Your task to perform on an android device: open app "Google Find My Device" Image 0: 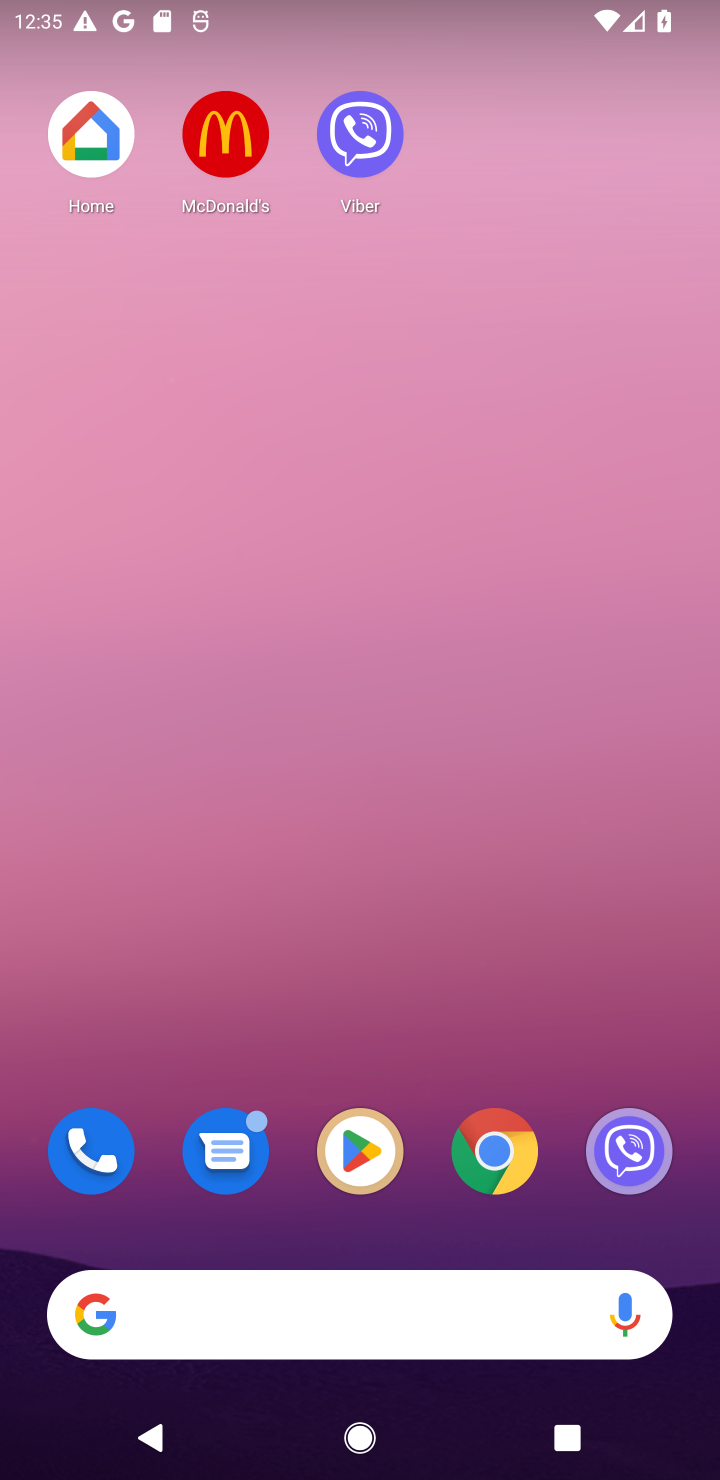
Step 0: click (337, 1136)
Your task to perform on an android device: open app "Google Find My Device" Image 1: 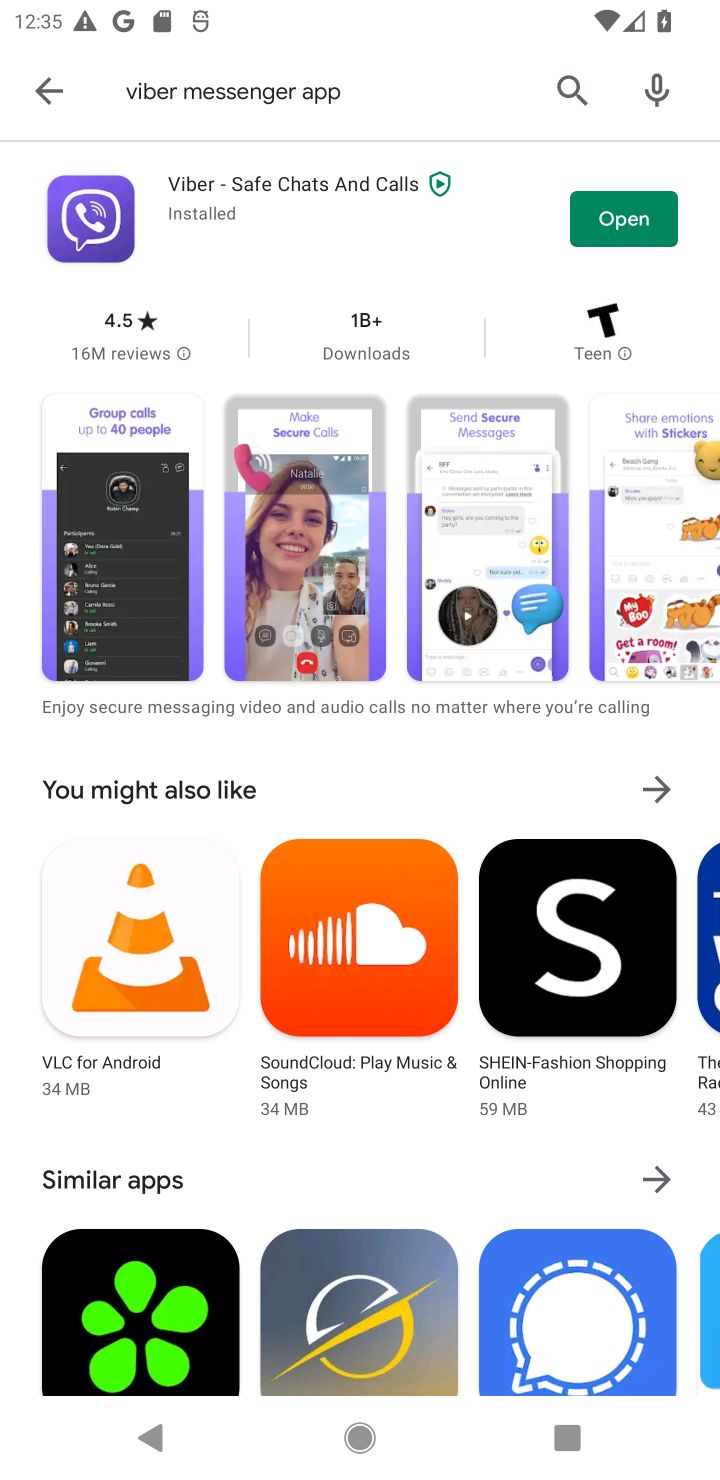
Step 1: click (584, 109)
Your task to perform on an android device: open app "Google Find My Device" Image 2: 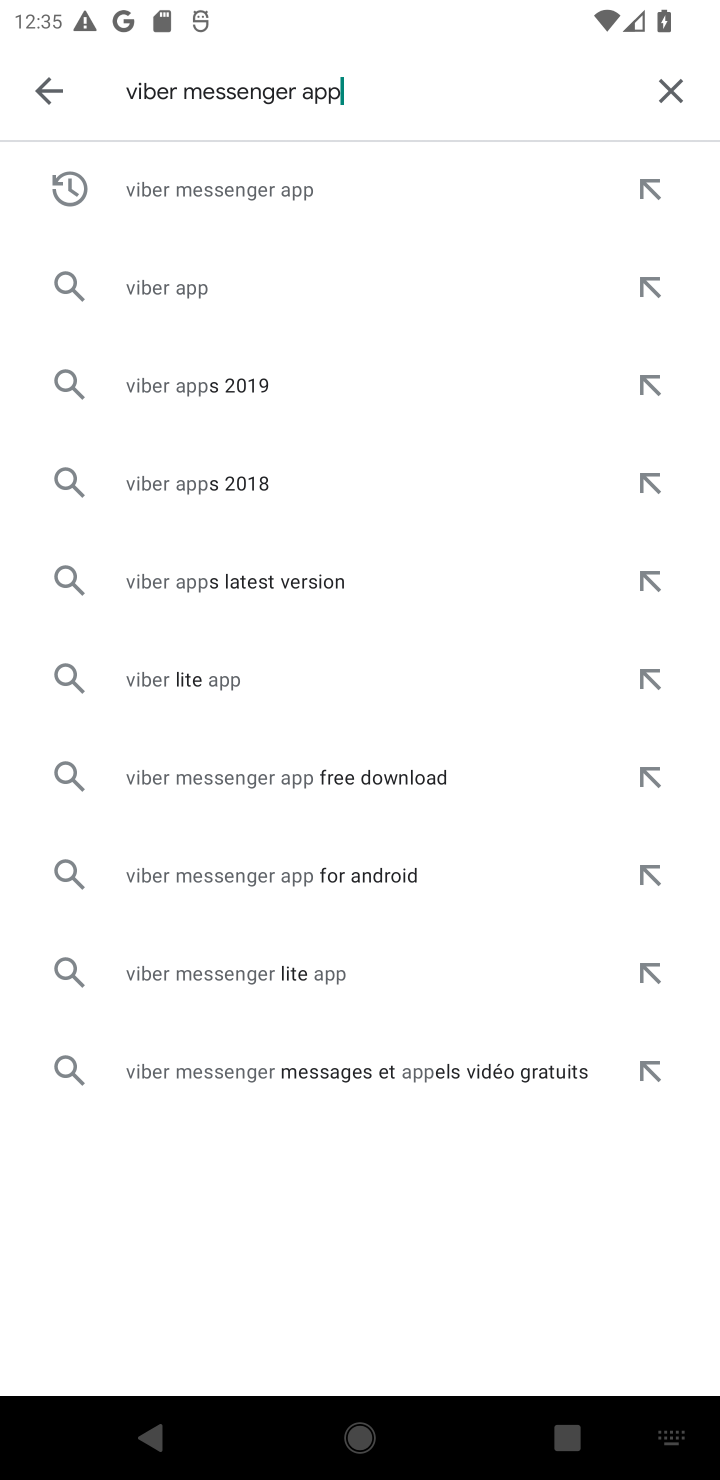
Step 2: click (647, 95)
Your task to perform on an android device: open app "Google Find My Device" Image 3: 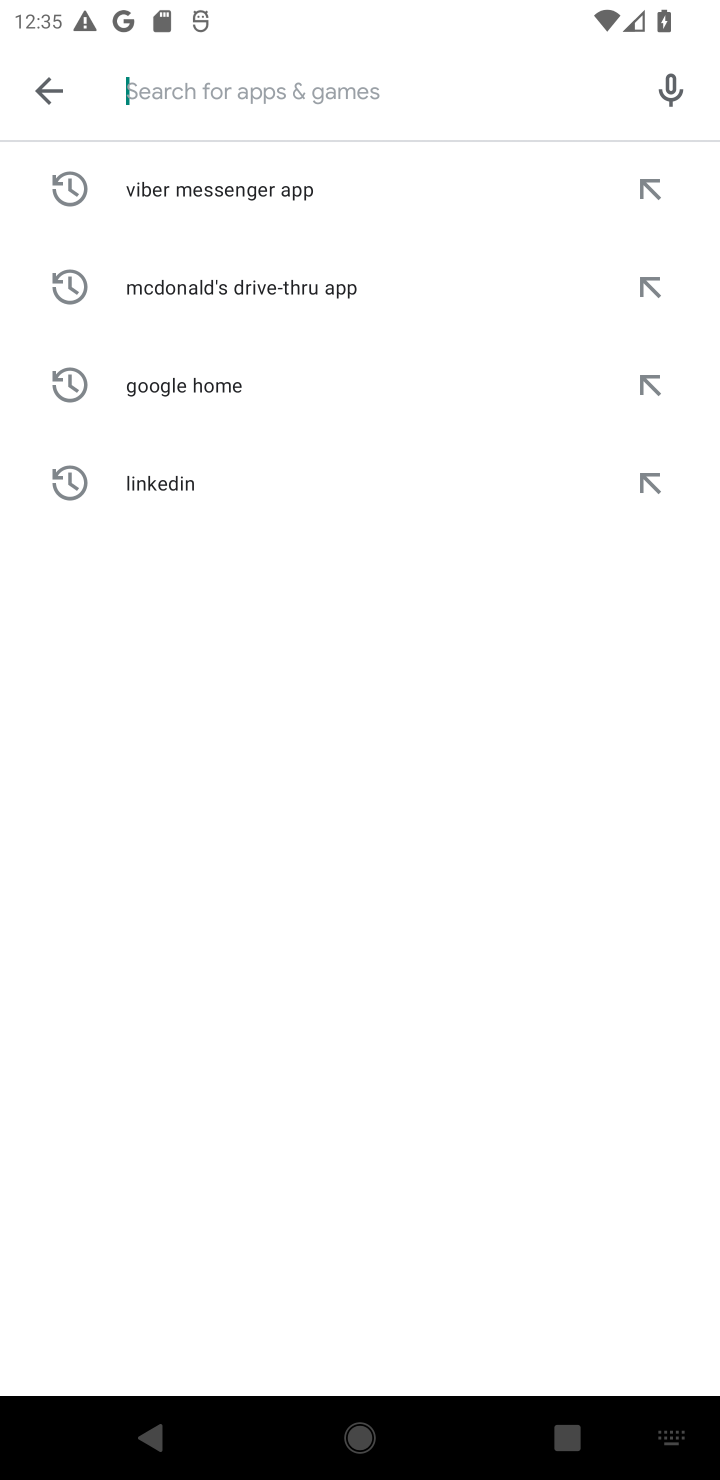
Step 3: type "Google Find My Device"
Your task to perform on an android device: open app "Google Find My Device" Image 4: 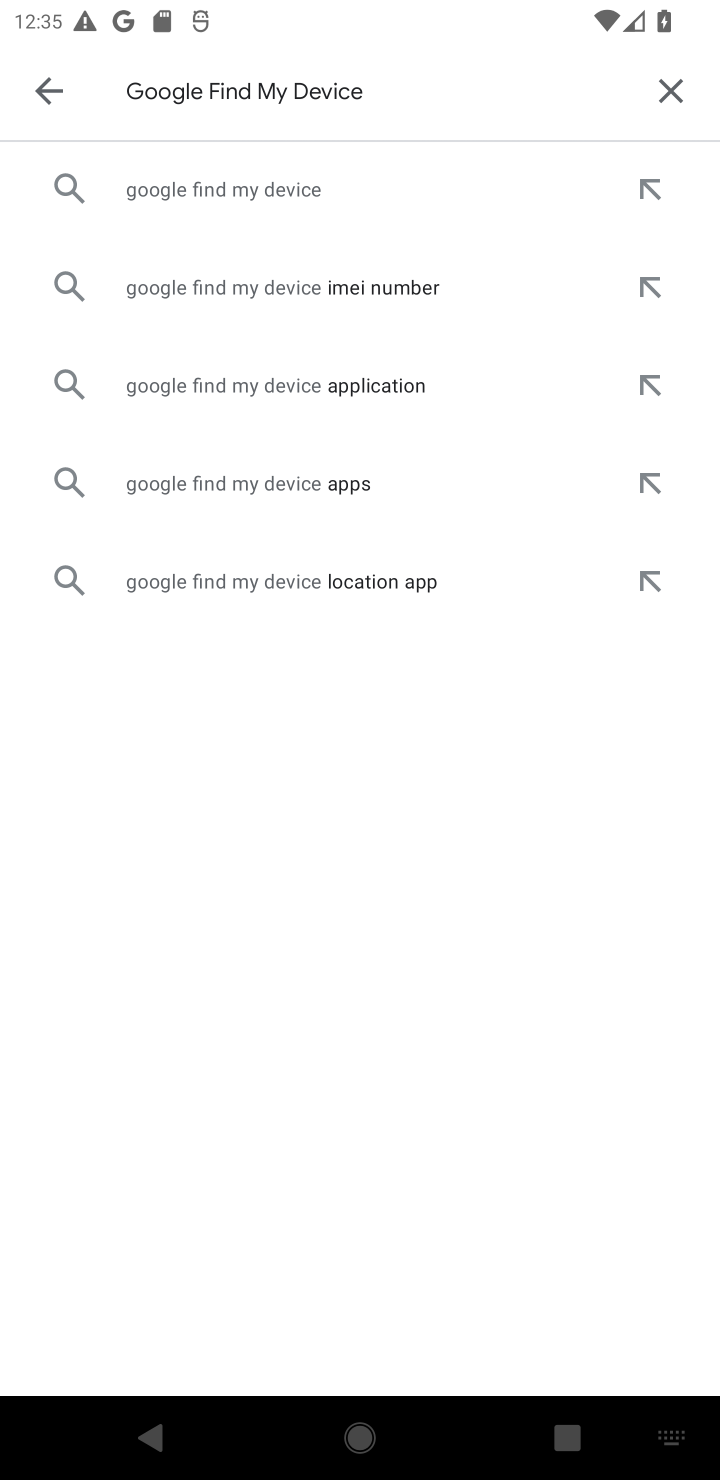
Step 4: click (293, 185)
Your task to perform on an android device: open app "Google Find My Device" Image 5: 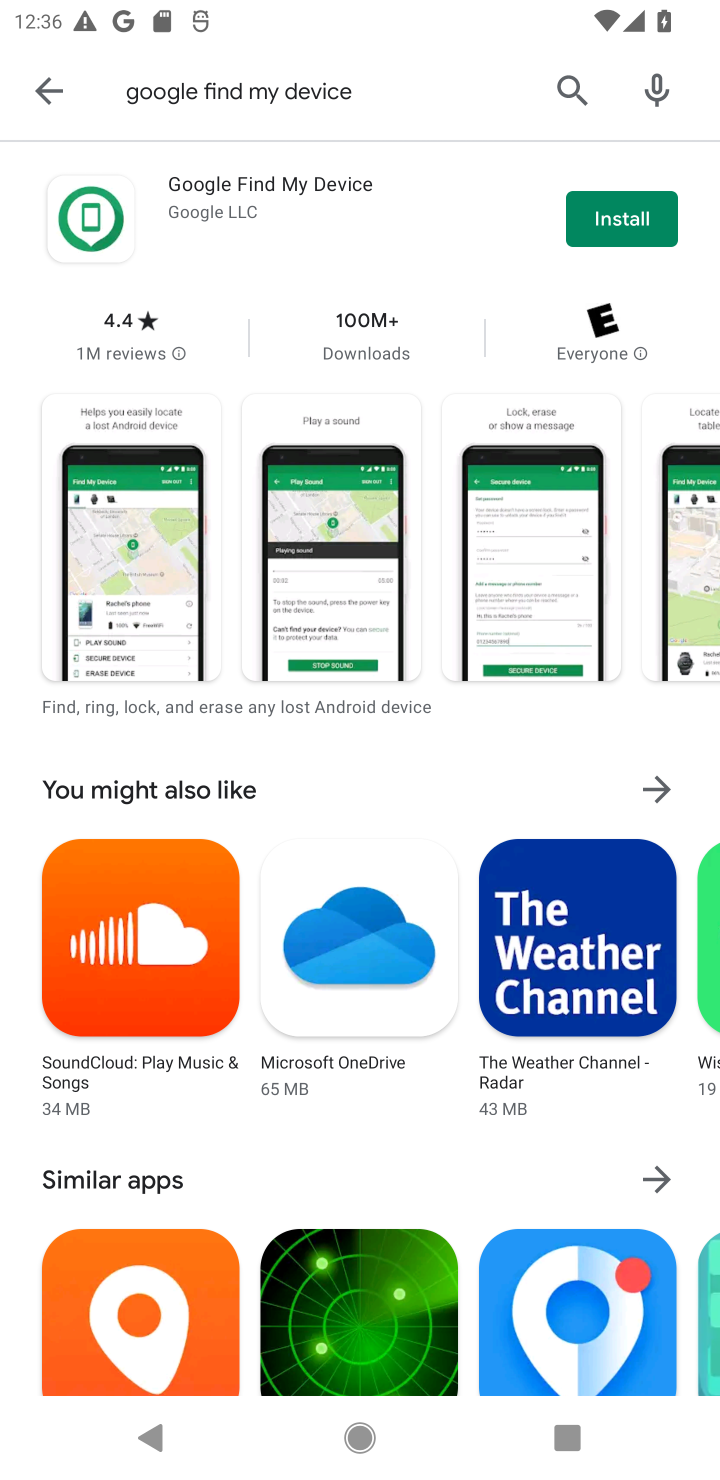
Step 5: click (373, 231)
Your task to perform on an android device: open app "Google Find My Device" Image 6: 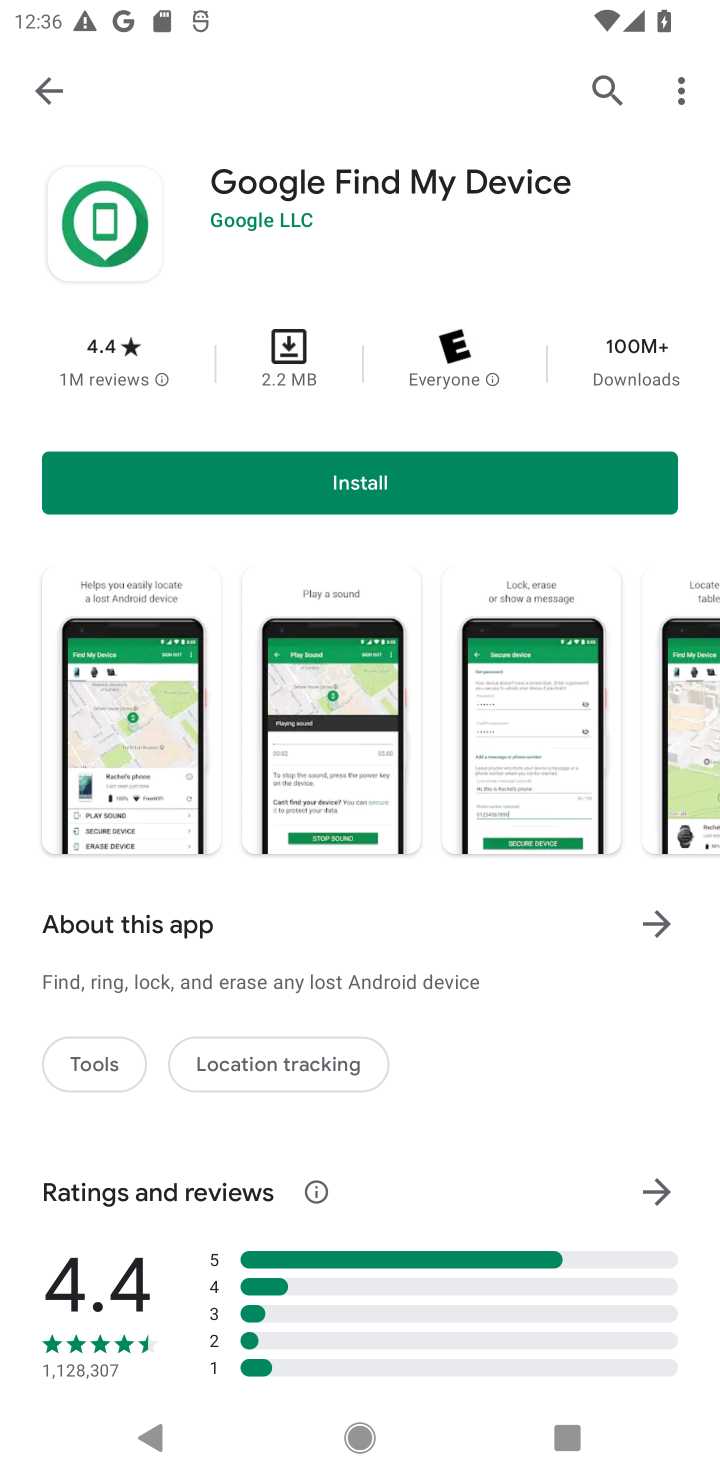
Step 6: task complete